Your task to perform on an android device: Search for sushi restaurants on Maps Image 0: 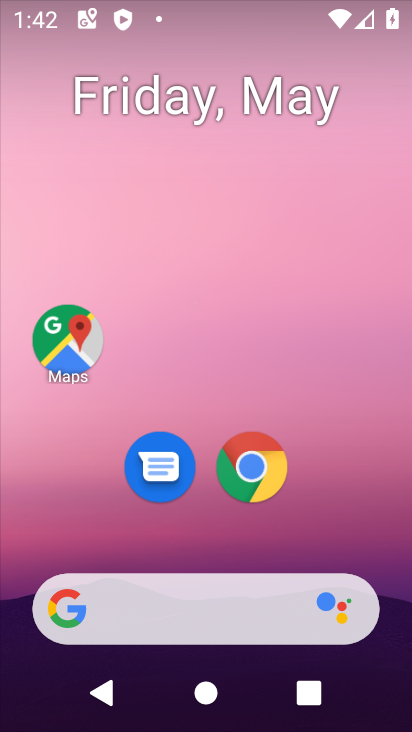
Step 0: click (67, 341)
Your task to perform on an android device: Search for sushi restaurants on Maps Image 1: 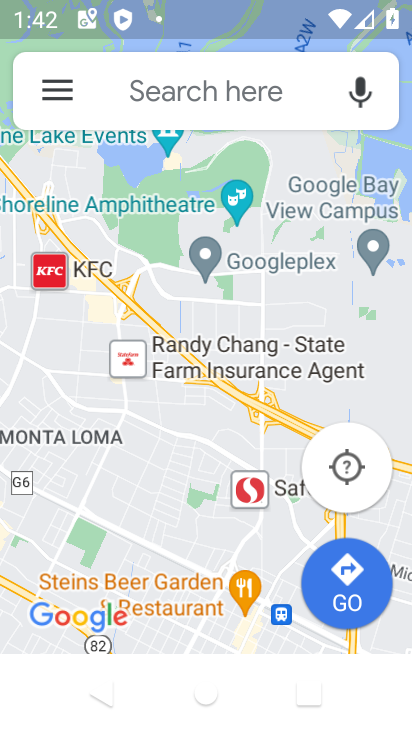
Step 1: click (282, 104)
Your task to perform on an android device: Search for sushi restaurants on Maps Image 2: 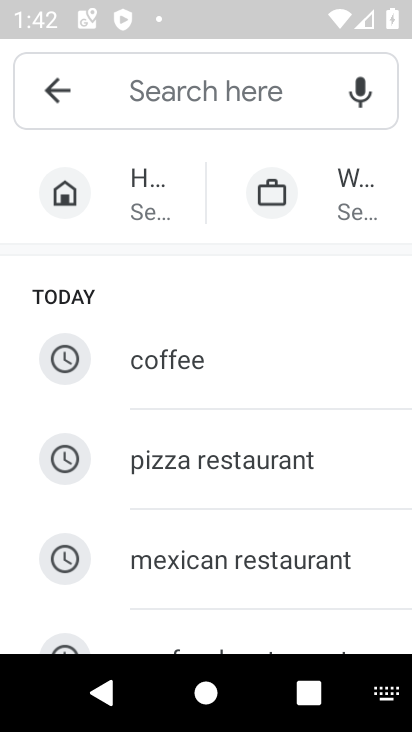
Step 2: type "sushi restaurants"
Your task to perform on an android device: Search for sushi restaurants on Maps Image 3: 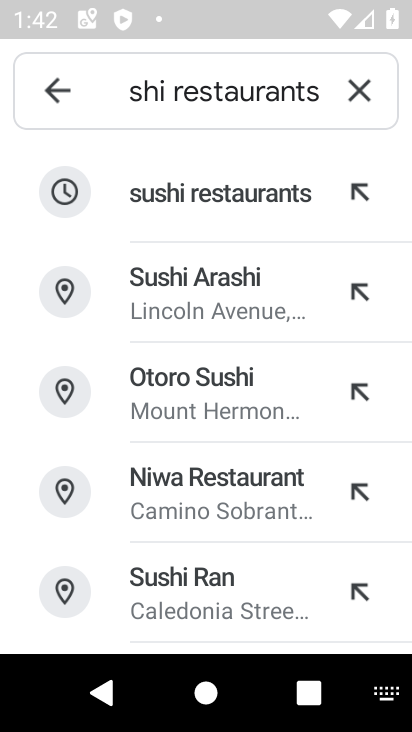
Step 3: click (234, 196)
Your task to perform on an android device: Search for sushi restaurants on Maps Image 4: 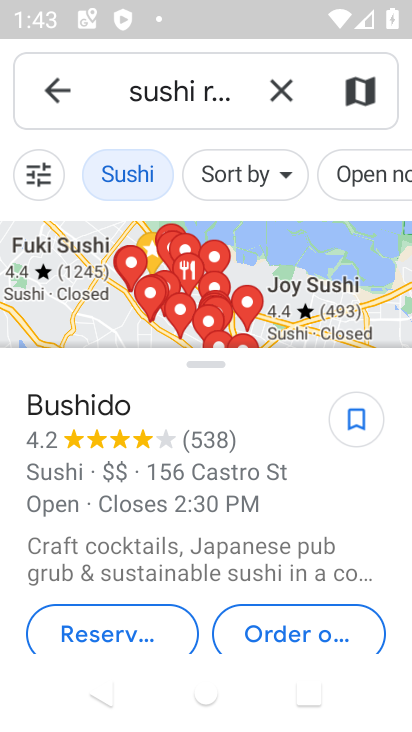
Step 4: task complete